Your task to perform on an android device: see creations saved in the google photos Image 0: 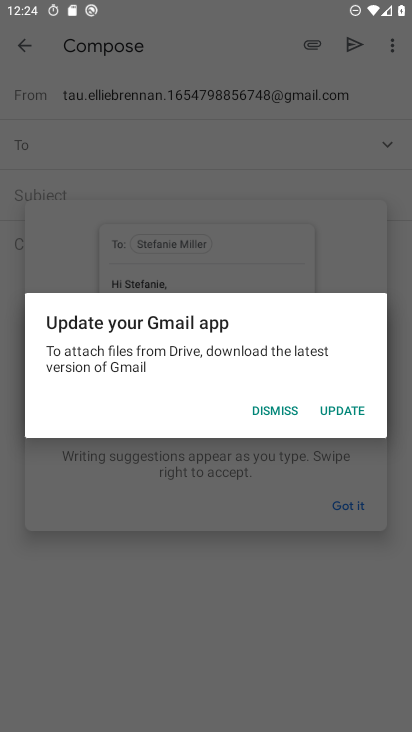
Step 0: press home button
Your task to perform on an android device: see creations saved in the google photos Image 1: 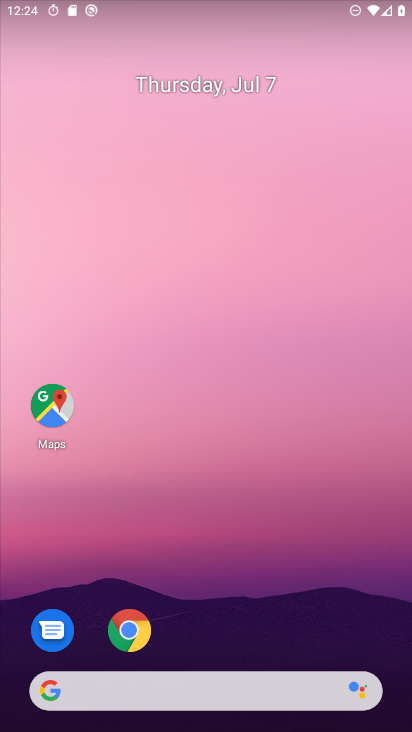
Step 1: drag from (204, 648) to (312, 44)
Your task to perform on an android device: see creations saved in the google photos Image 2: 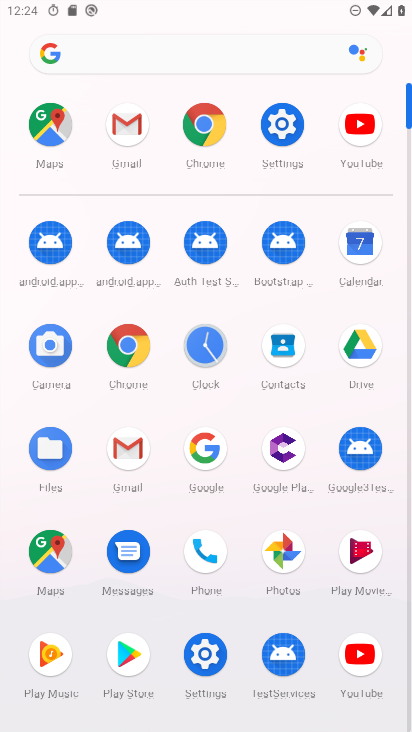
Step 2: click (280, 549)
Your task to perform on an android device: see creations saved in the google photos Image 3: 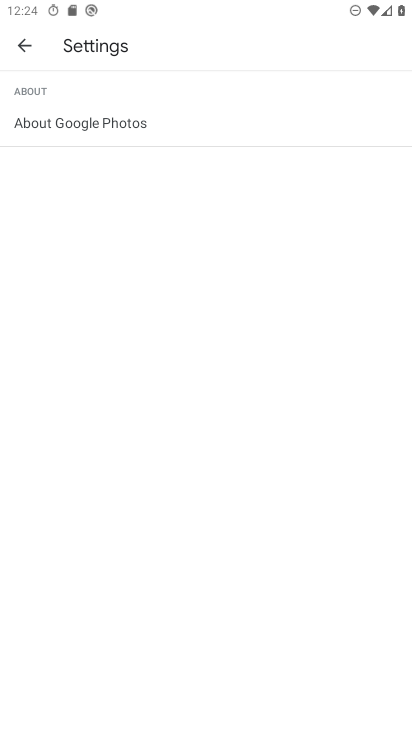
Step 3: click (29, 45)
Your task to perform on an android device: see creations saved in the google photos Image 4: 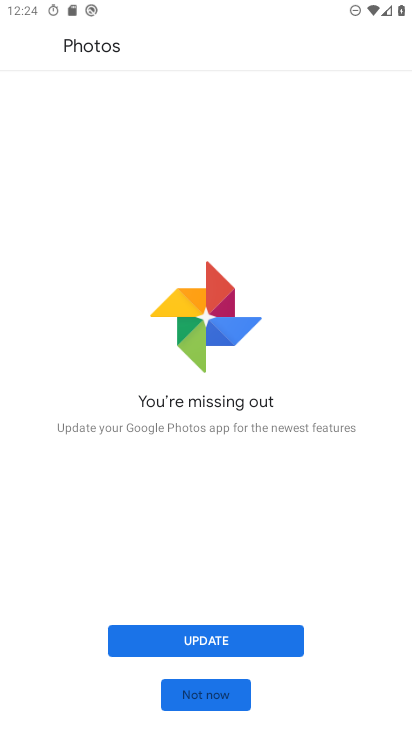
Step 4: click (231, 694)
Your task to perform on an android device: see creations saved in the google photos Image 5: 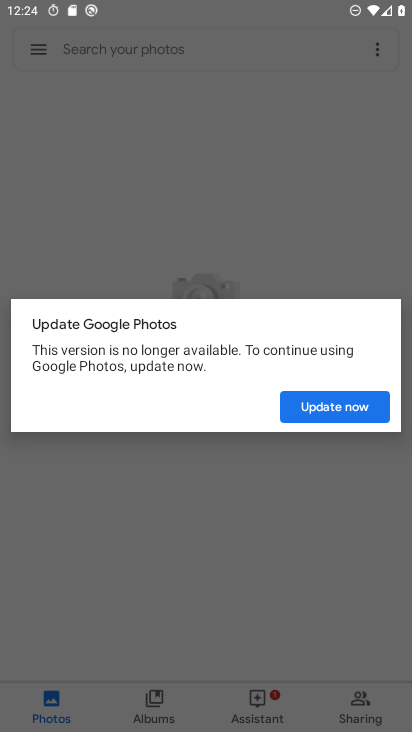
Step 5: click (314, 396)
Your task to perform on an android device: see creations saved in the google photos Image 6: 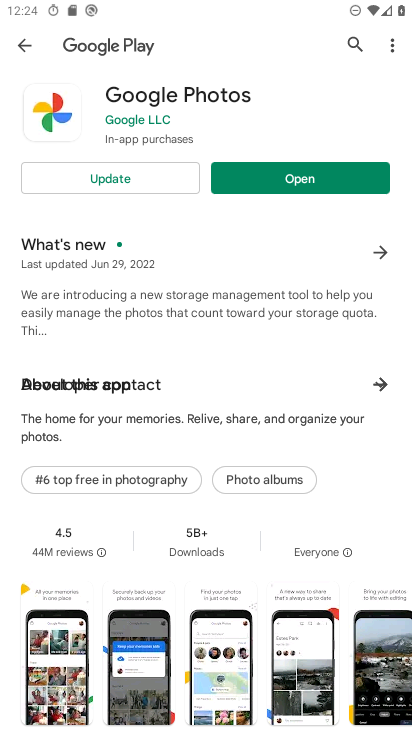
Step 6: click (265, 177)
Your task to perform on an android device: see creations saved in the google photos Image 7: 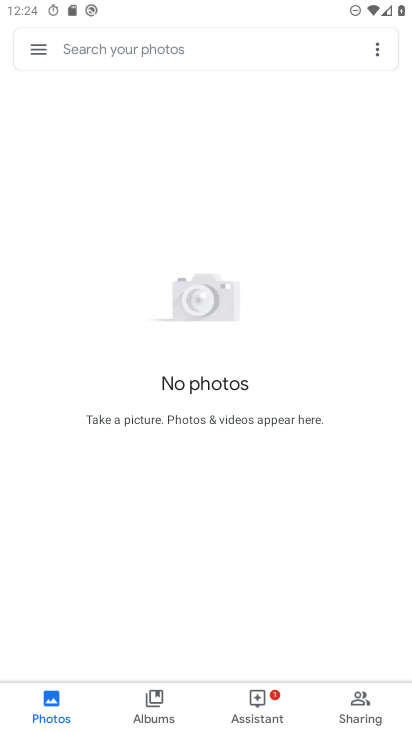
Step 7: click (179, 50)
Your task to perform on an android device: see creations saved in the google photos Image 8: 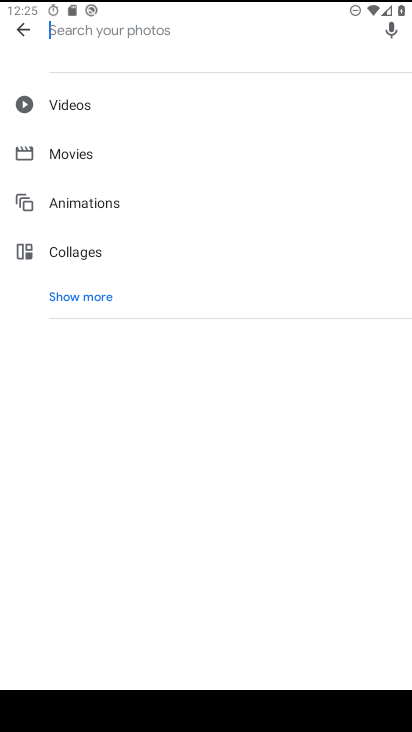
Step 8: type "creations"
Your task to perform on an android device: see creations saved in the google photos Image 9: 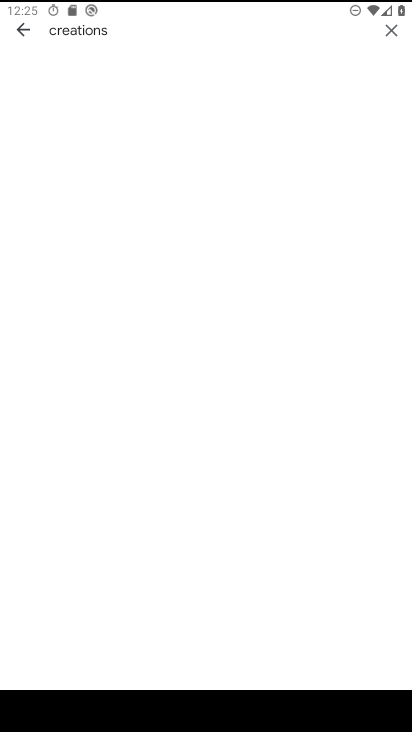
Step 9: task complete